Your task to perform on an android device: Open Google Chrome and click the shortcut for Amazon.com Image 0: 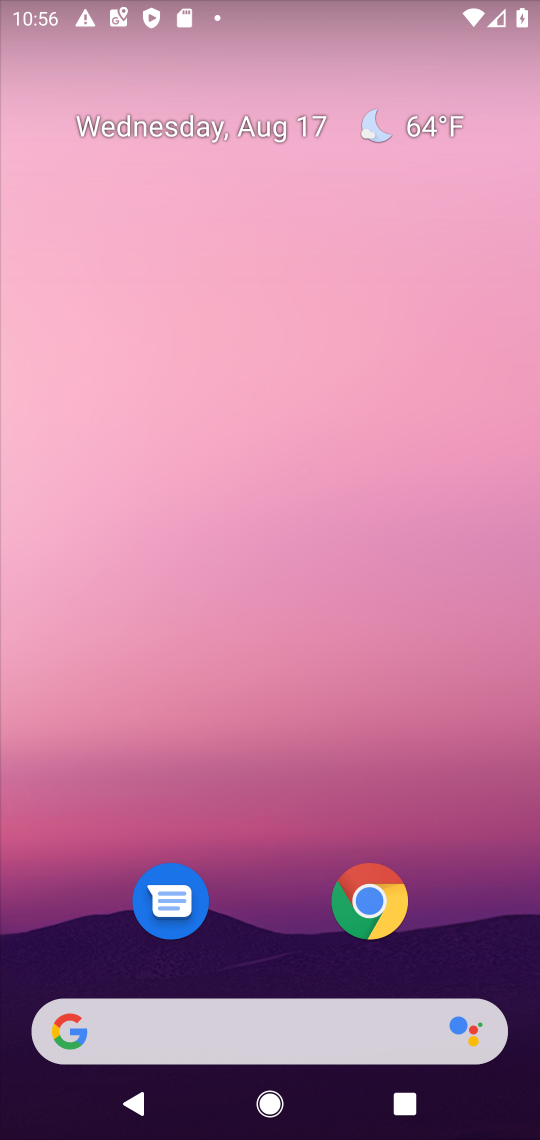
Step 0: press home button
Your task to perform on an android device: Open Google Chrome and click the shortcut for Amazon.com Image 1: 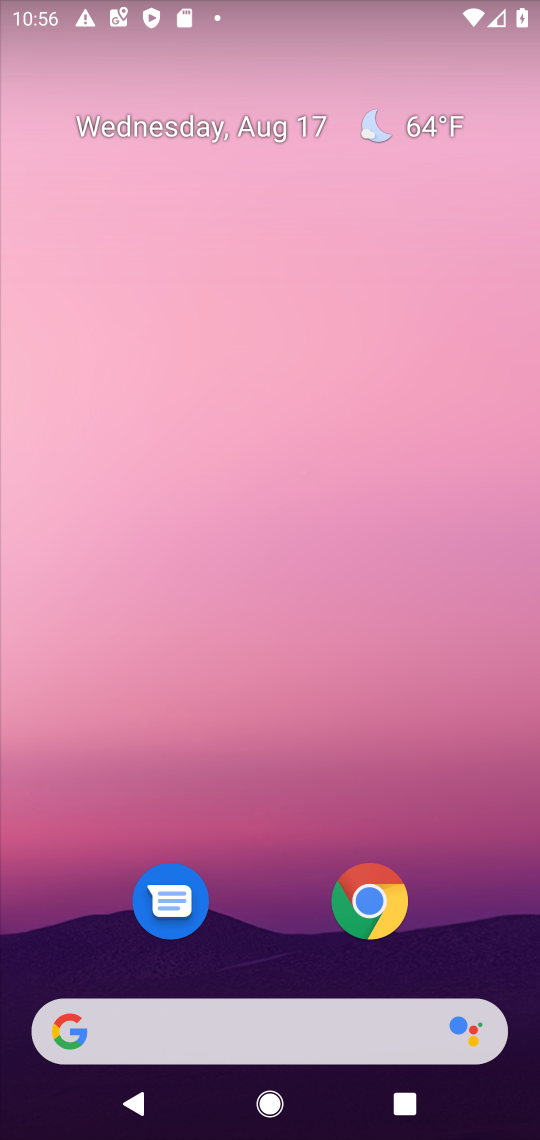
Step 1: drag from (262, 949) to (526, 548)
Your task to perform on an android device: Open Google Chrome and click the shortcut for Amazon.com Image 2: 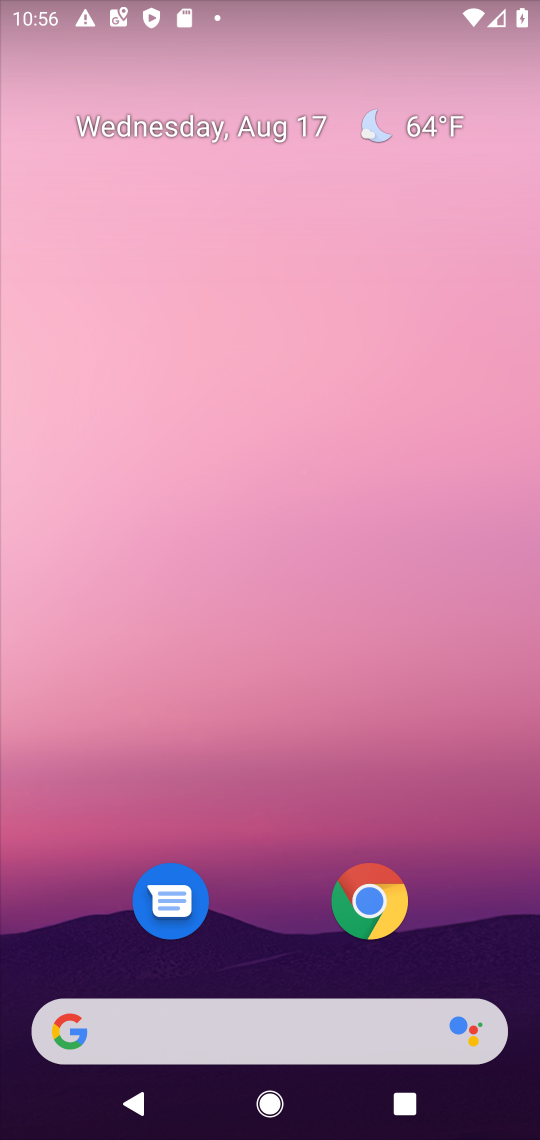
Step 2: click (167, 596)
Your task to perform on an android device: Open Google Chrome and click the shortcut for Amazon.com Image 3: 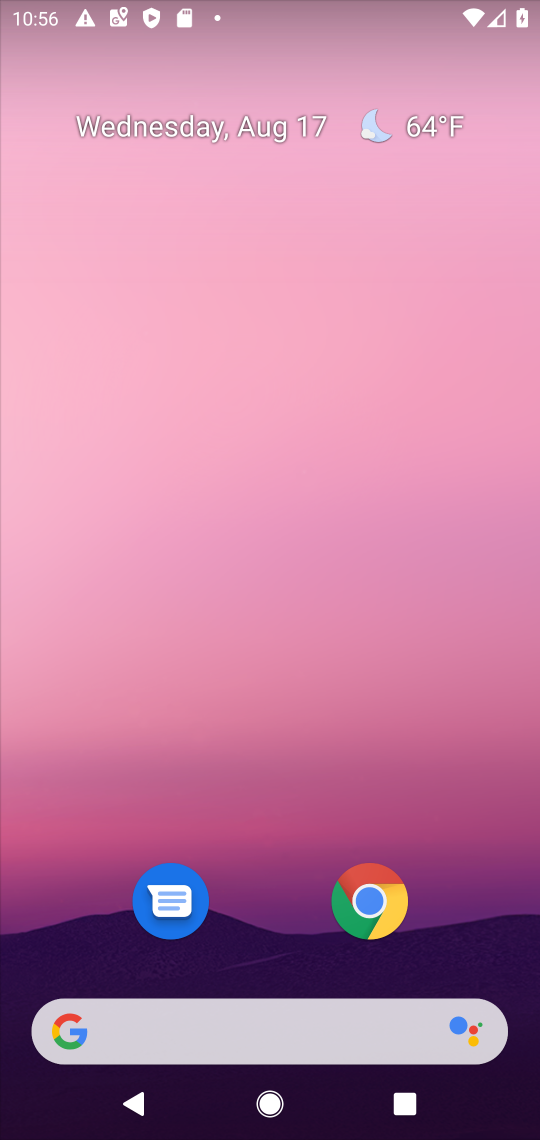
Step 3: click (355, 905)
Your task to perform on an android device: Open Google Chrome and click the shortcut for Amazon.com Image 4: 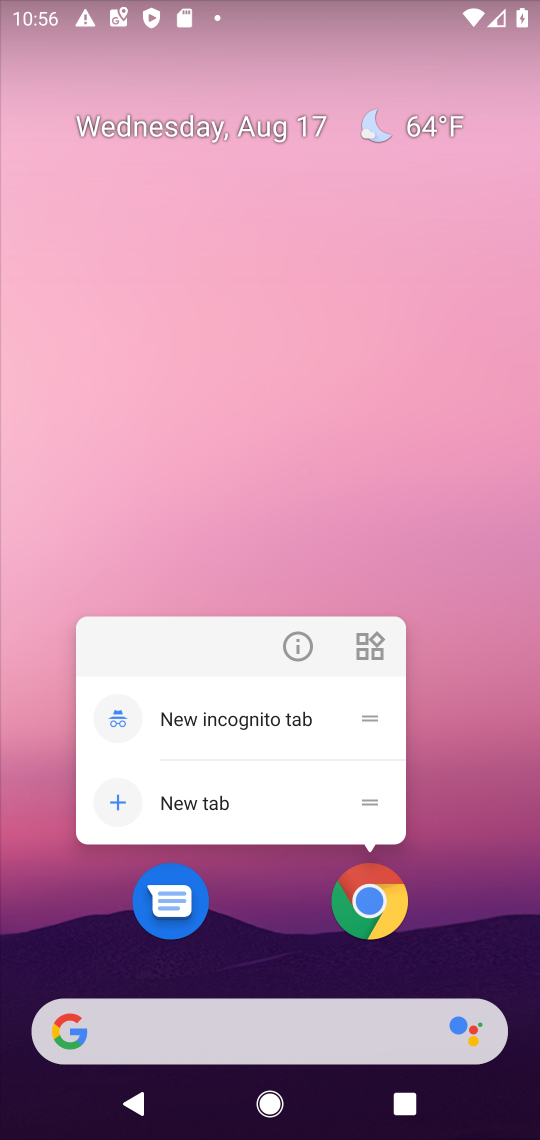
Step 4: click (363, 893)
Your task to perform on an android device: Open Google Chrome and click the shortcut for Amazon.com Image 5: 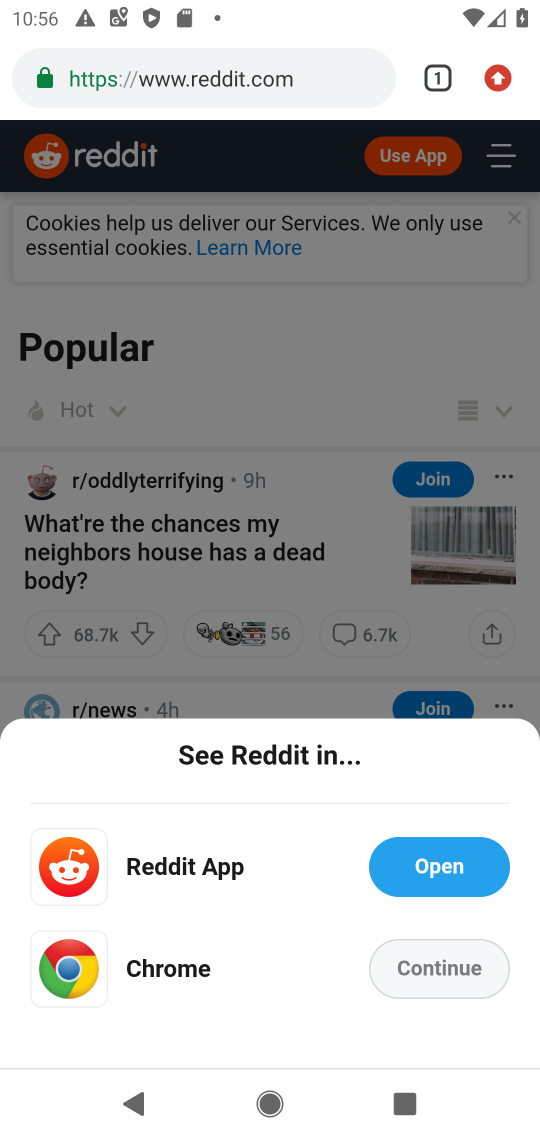
Step 5: click (493, 89)
Your task to perform on an android device: Open Google Chrome and click the shortcut for Amazon.com Image 6: 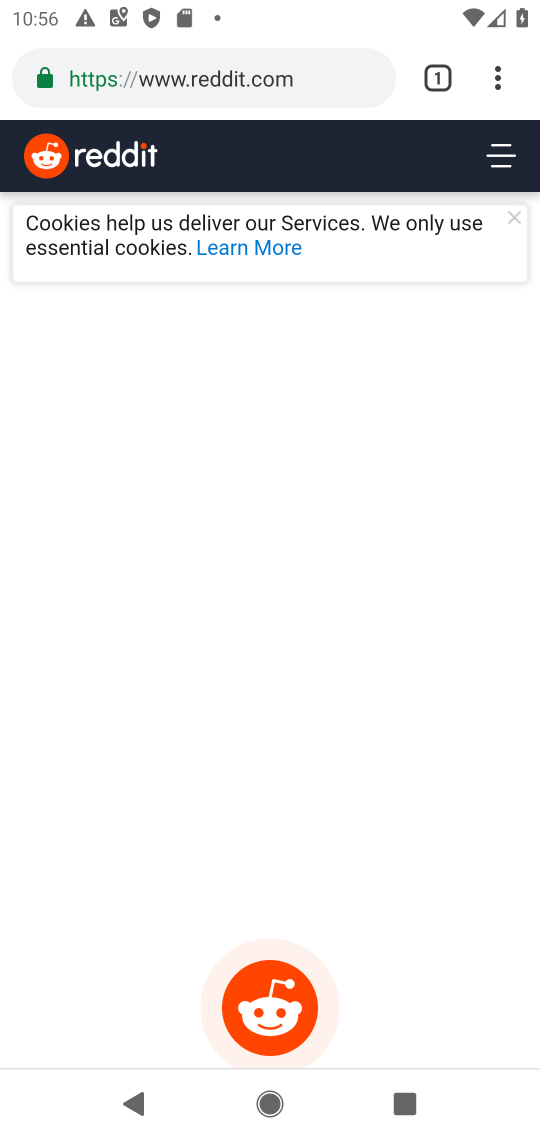
Step 6: click (493, 80)
Your task to perform on an android device: Open Google Chrome and click the shortcut for Amazon.com Image 7: 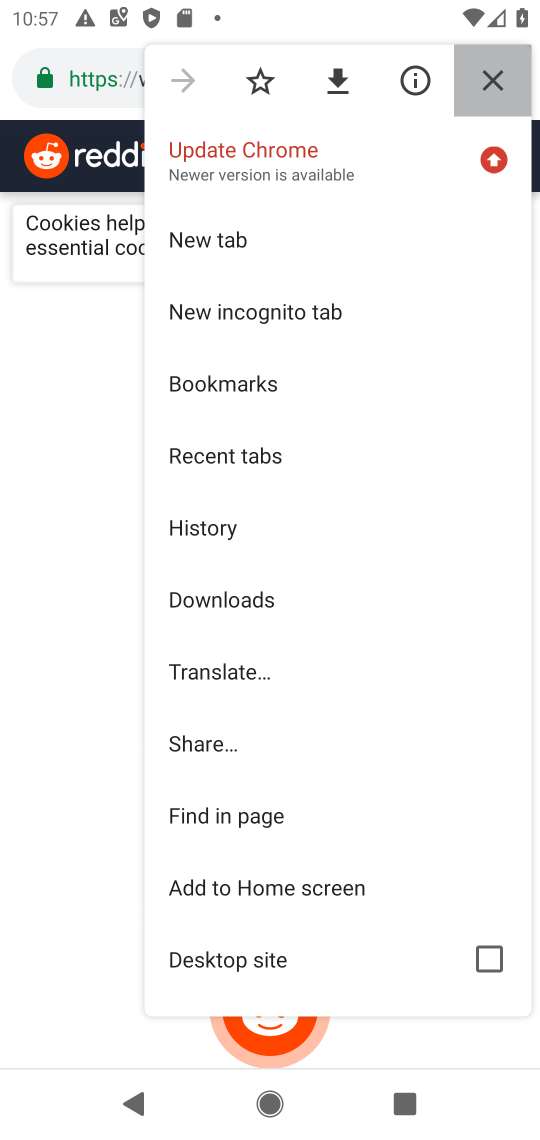
Step 7: click (219, 224)
Your task to perform on an android device: Open Google Chrome and click the shortcut for Amazon.com Image 8: 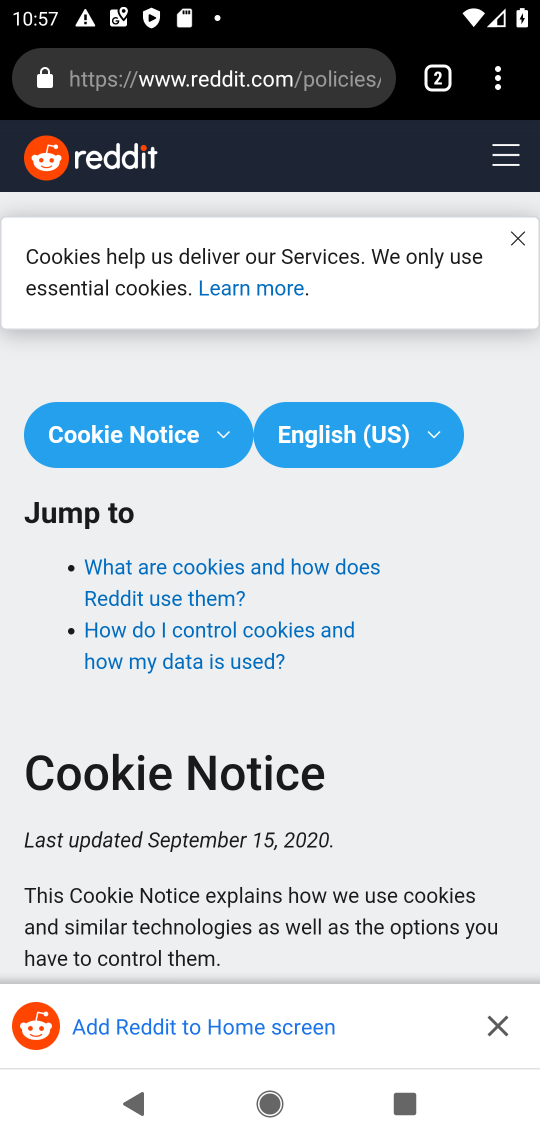
Step 8: drag from (495, 86) to (194, 236)
Your task to perform on an android device: Open Google Chrome and click the shortcut for Amazon.com Image 9: 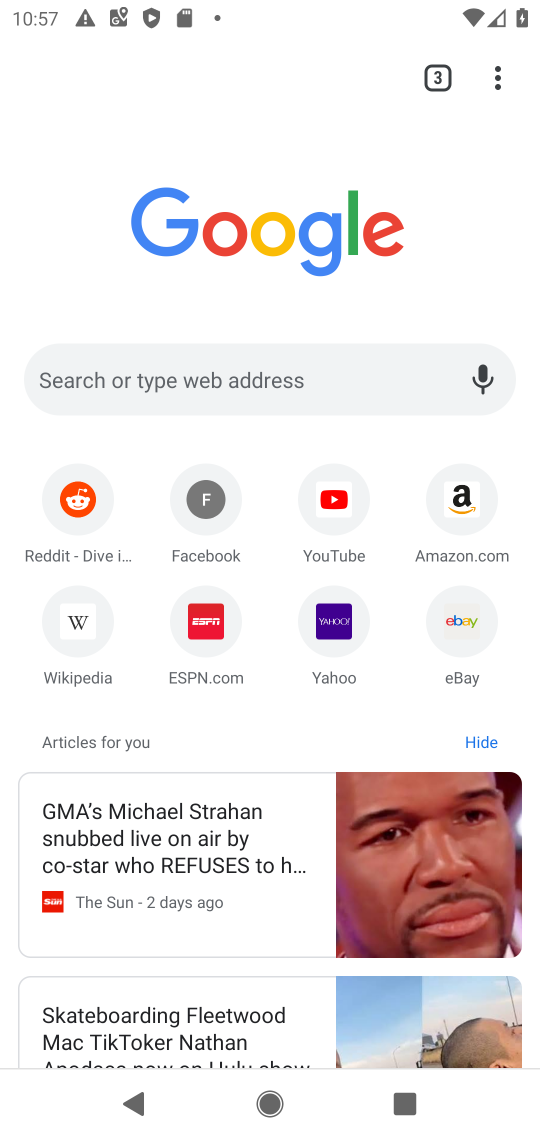
Step 9: click (455, 497)
Your task to perform on an android device: Open Google Chrome and click the shortcut for Amazon.com Image 10: 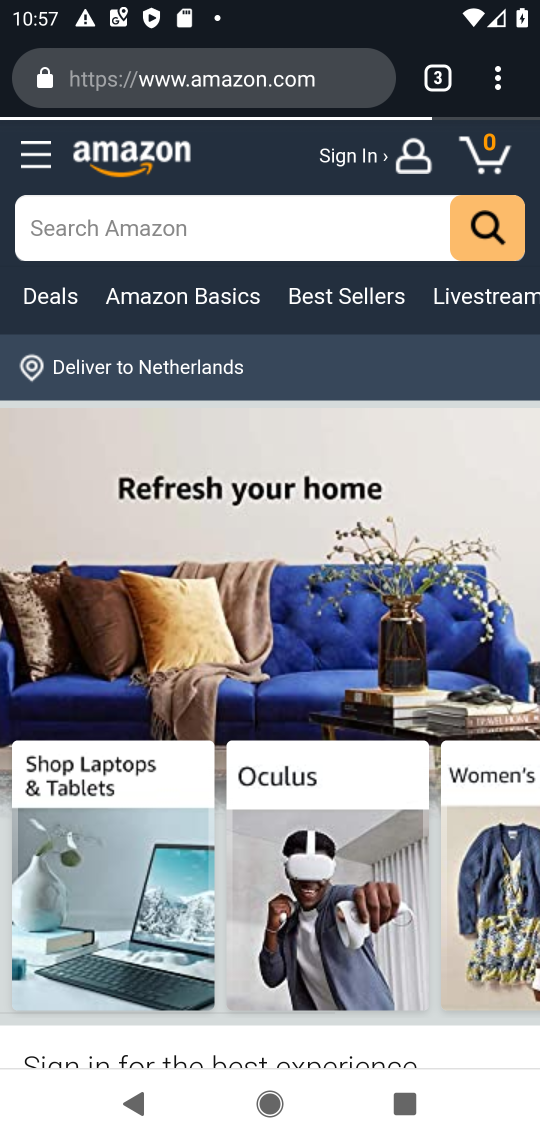
Step 10: task complete